Your task to perform on an android device: Play the latest video from the New York Times Image 0: 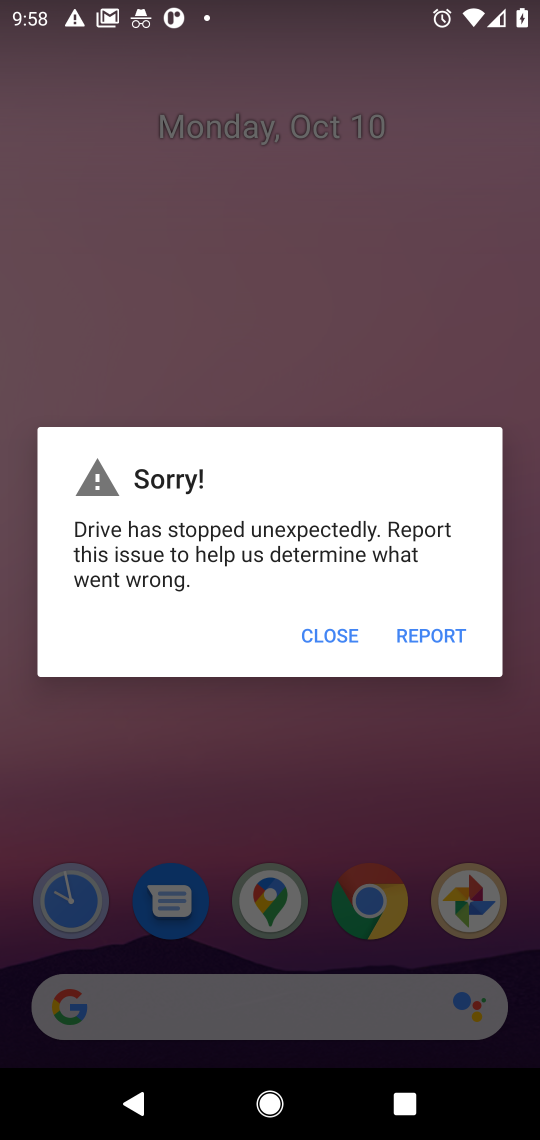
Step 0: press home button
Your task to perform on an android device: Play the latest video from the New York Times Image 1: 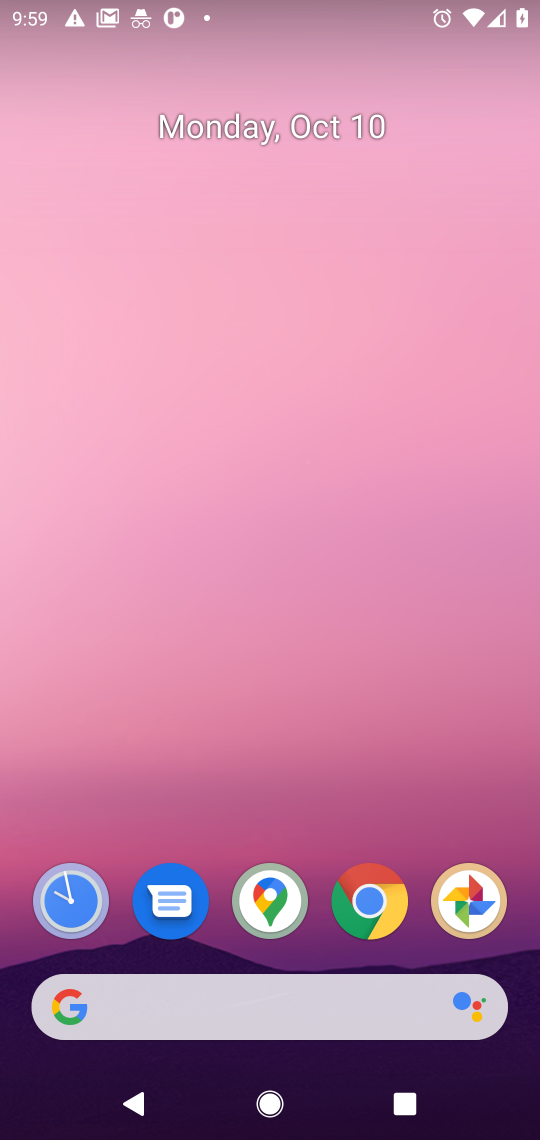
Step 1: click (299, 1015)
Your task to perform on an android device: Play the latest video from the New York Times Image 2: 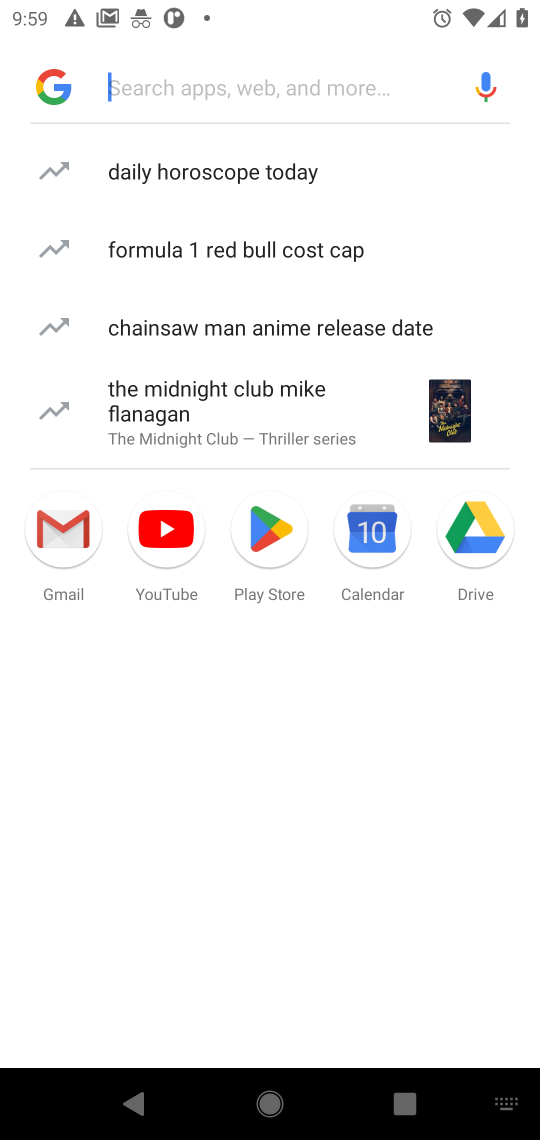
Step 2: type "Play the latest video from the New York Times"
Your task to perform on an android device: Play the latest video from the New York Times Image 3: 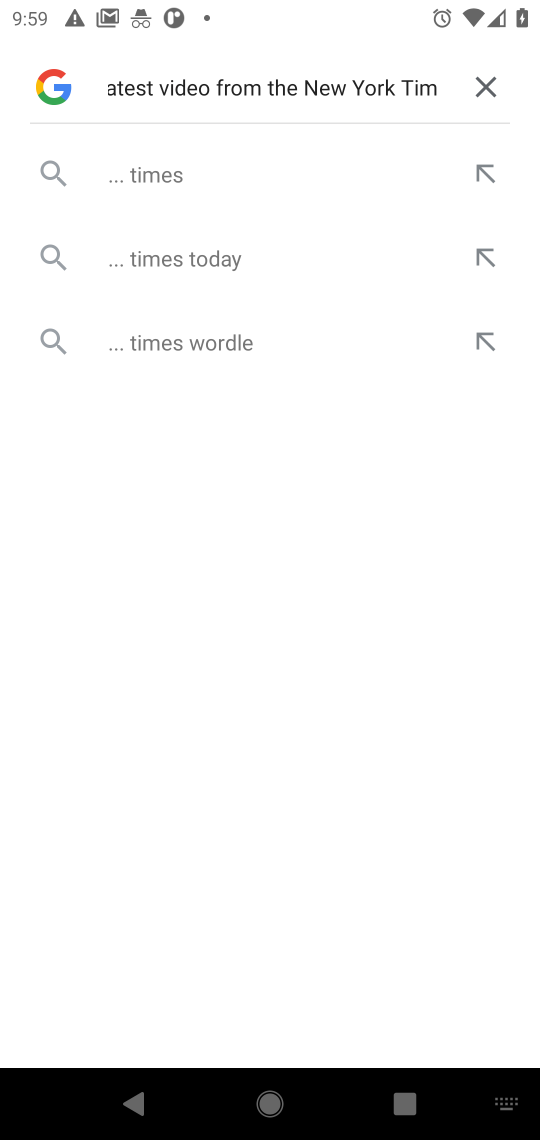
Step 3: press enter
Your task to perform on an android device: Play the latest video from the New York Times Image 4: 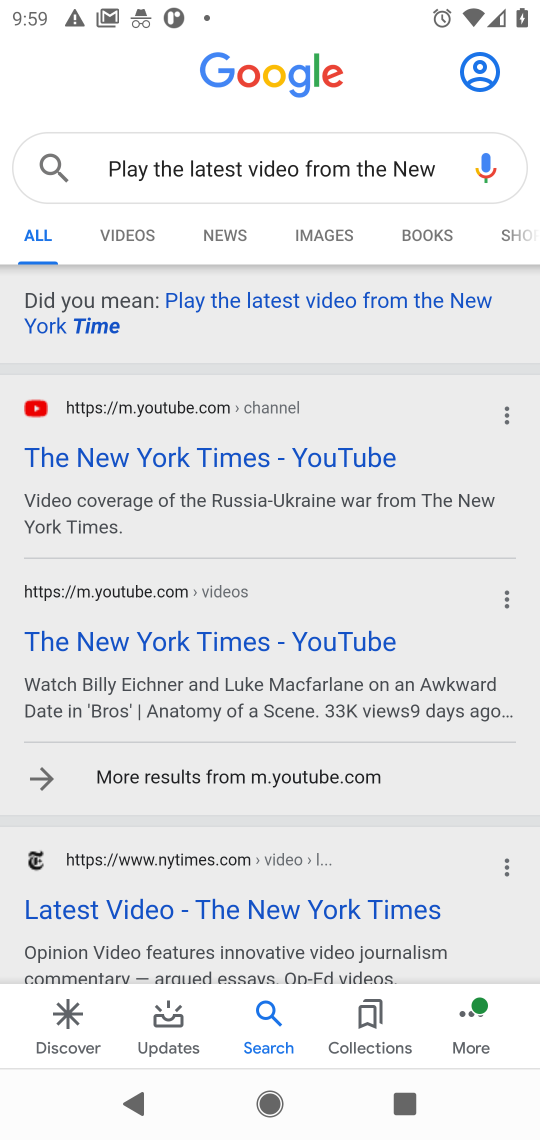
Step 4: click (219, 905)
Your task to perform on an android device: Play the latest video from the New York Times Image 5: 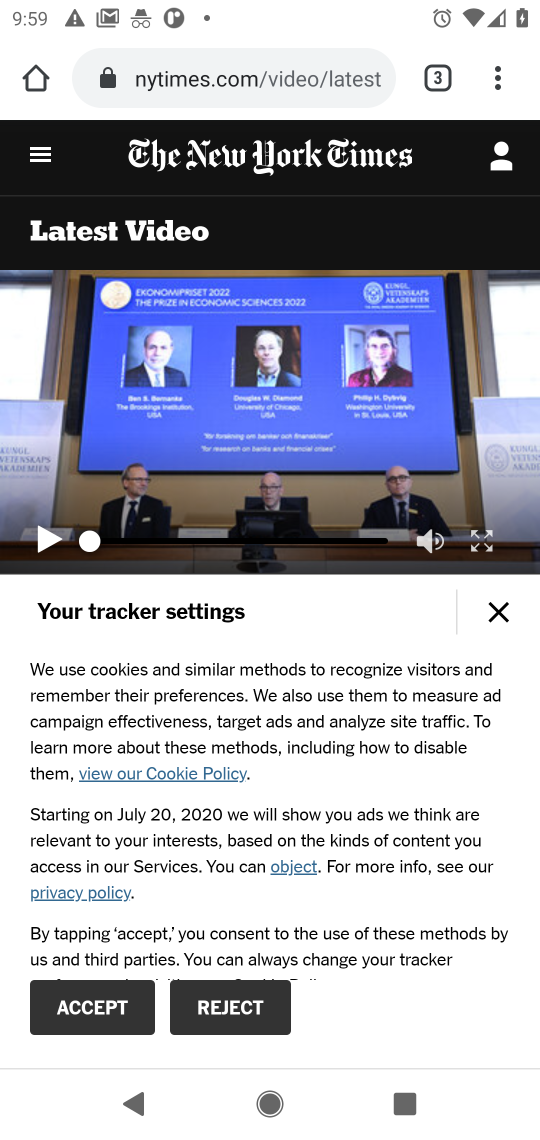
Step 5: click (75, 1019)
Your task to perform on an android device: Play the latest video from the New York Times Image 6: 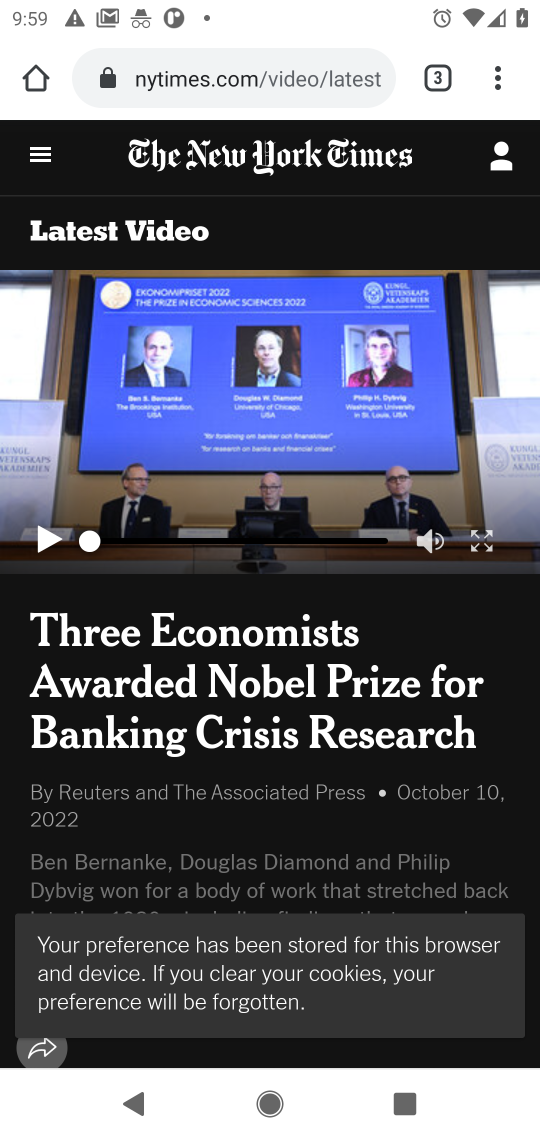
Step 6: click (43, 540)
Your task to perform on an android device: Play the latest video from the New York Times Image 7: 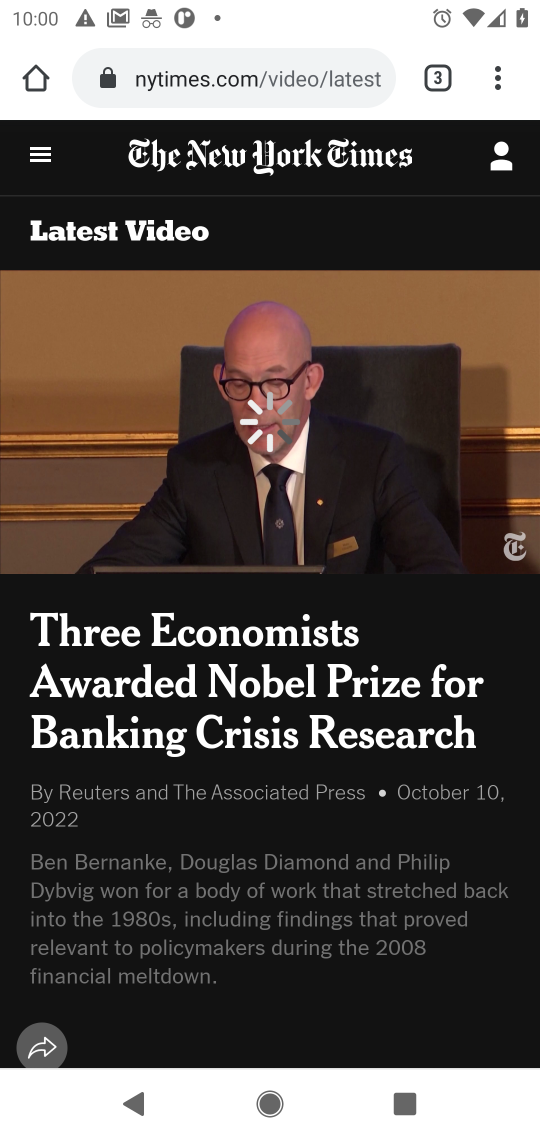
Step 7: task complete